Your task to perform on an android device: Open my contact list Image 0: 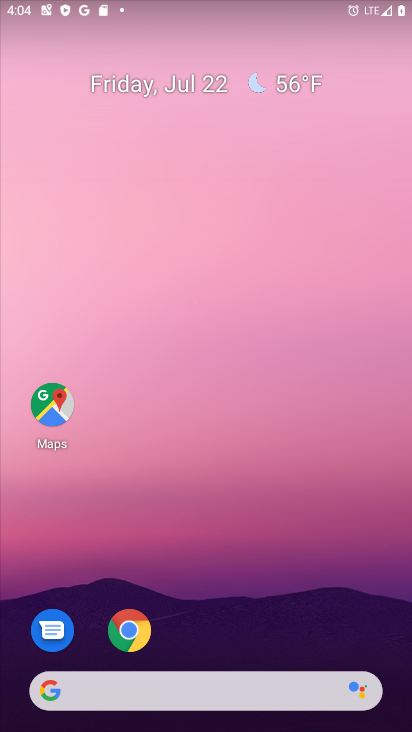
Step 0: drag from (201, 696) to (207, 139)
Your task to perform on an android device: Open my contact list Image 1: 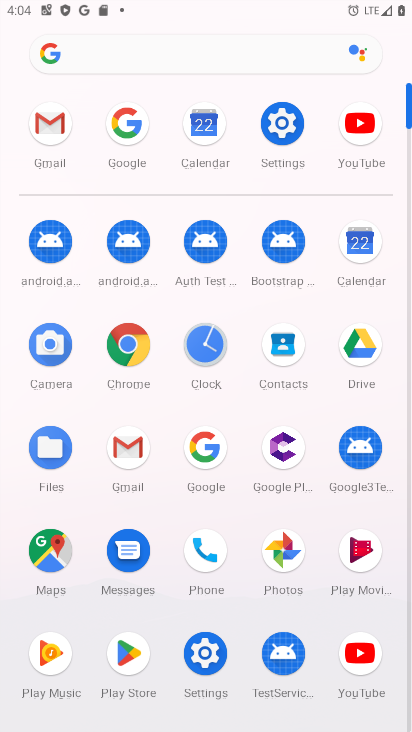
Step 1: click (271, 348)
Your task to perform on an android device: Open my contact list Image 2: 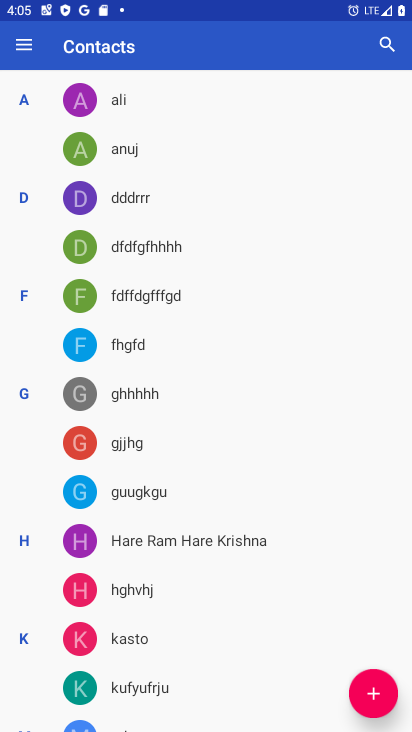
Step 2: task complete